Your task to perform on an android device: open app "Facebook Lite" (install if not already installed) and enter user name: "suppers@inbox.com" and password: "downplayed" Image 0: 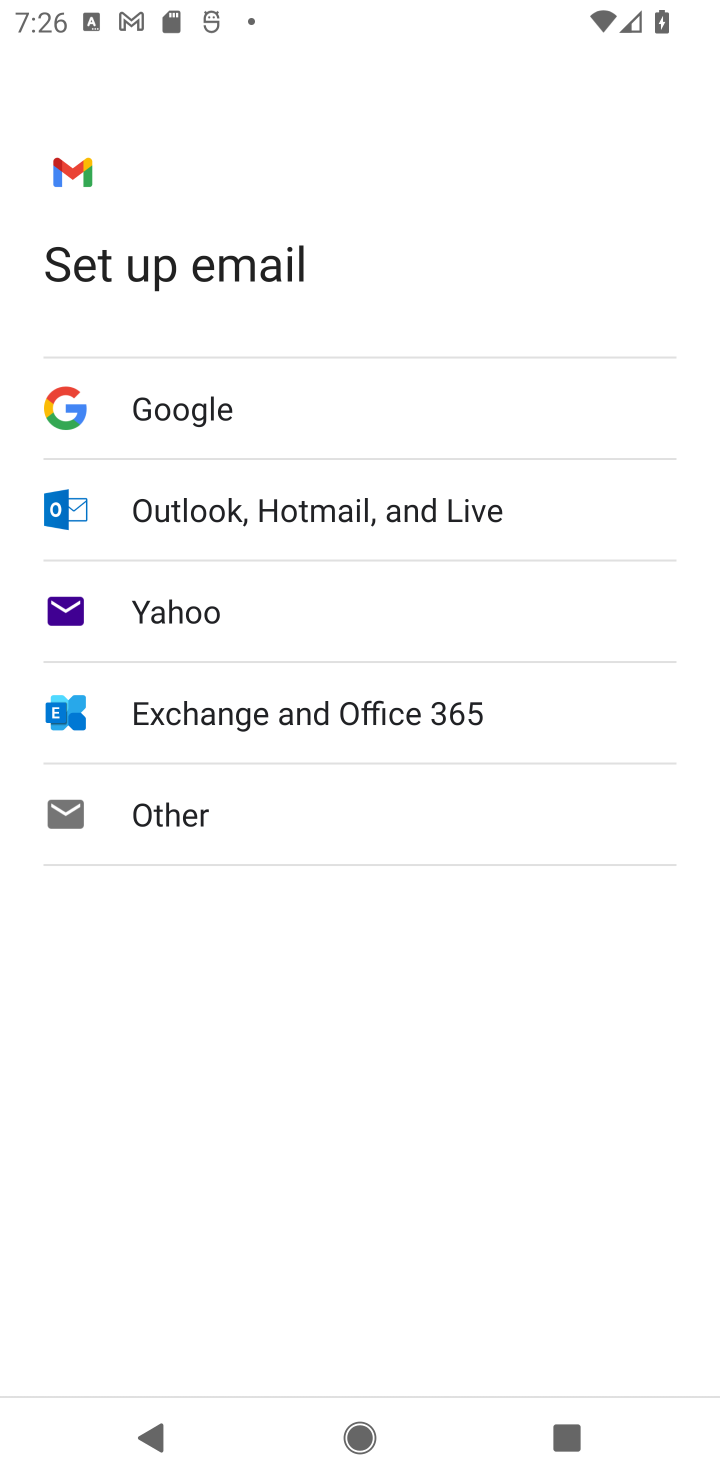
Step 0: press home button
Your task to perform on an android device: open app "Facebook Lite" (install if not already installed) and enter user name: "suppers@inbox.com" and password: "downplayed" Image 1: 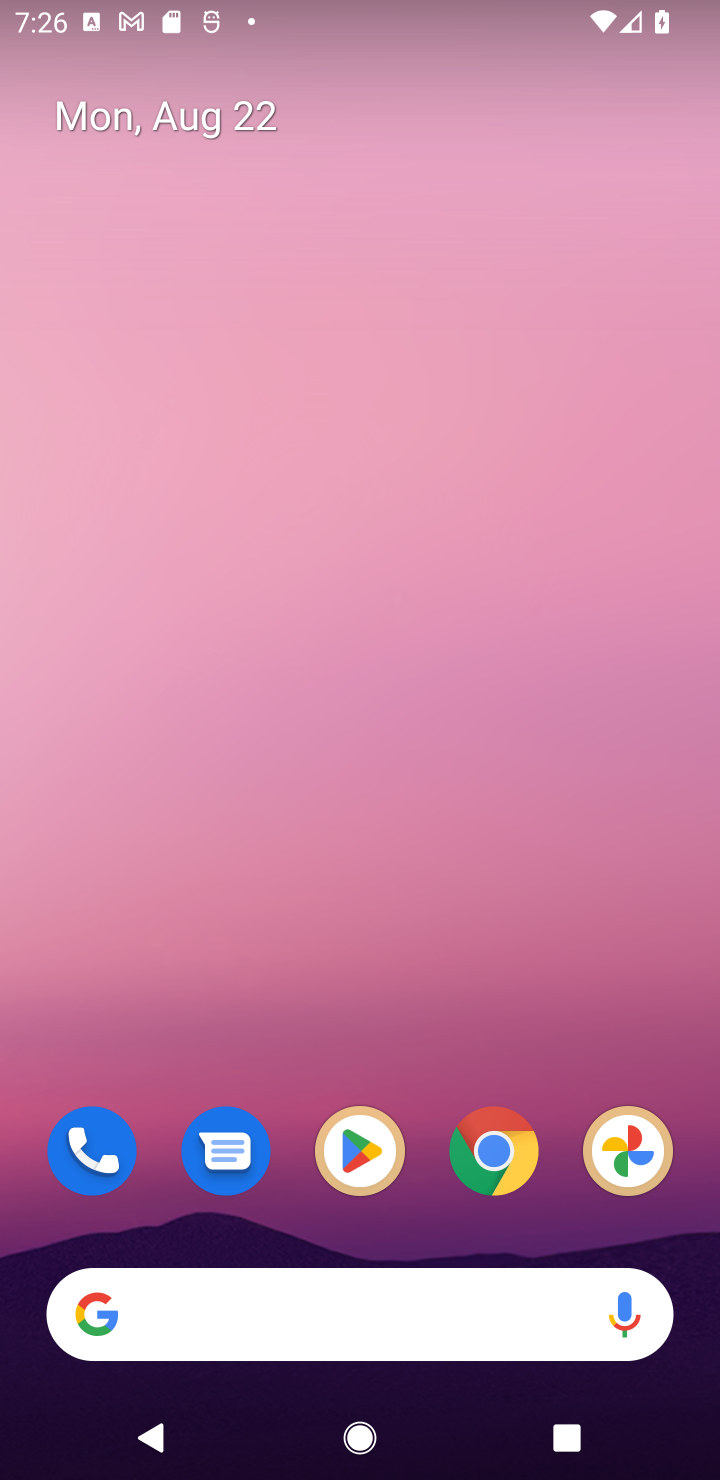
Step 1: click (369, 1152)
Your task to perform on an android device: open app "Facebook Lite" (install if not already installed) and enter user name: "suppers@inbox.com" and password: "downplayed" Image 2: 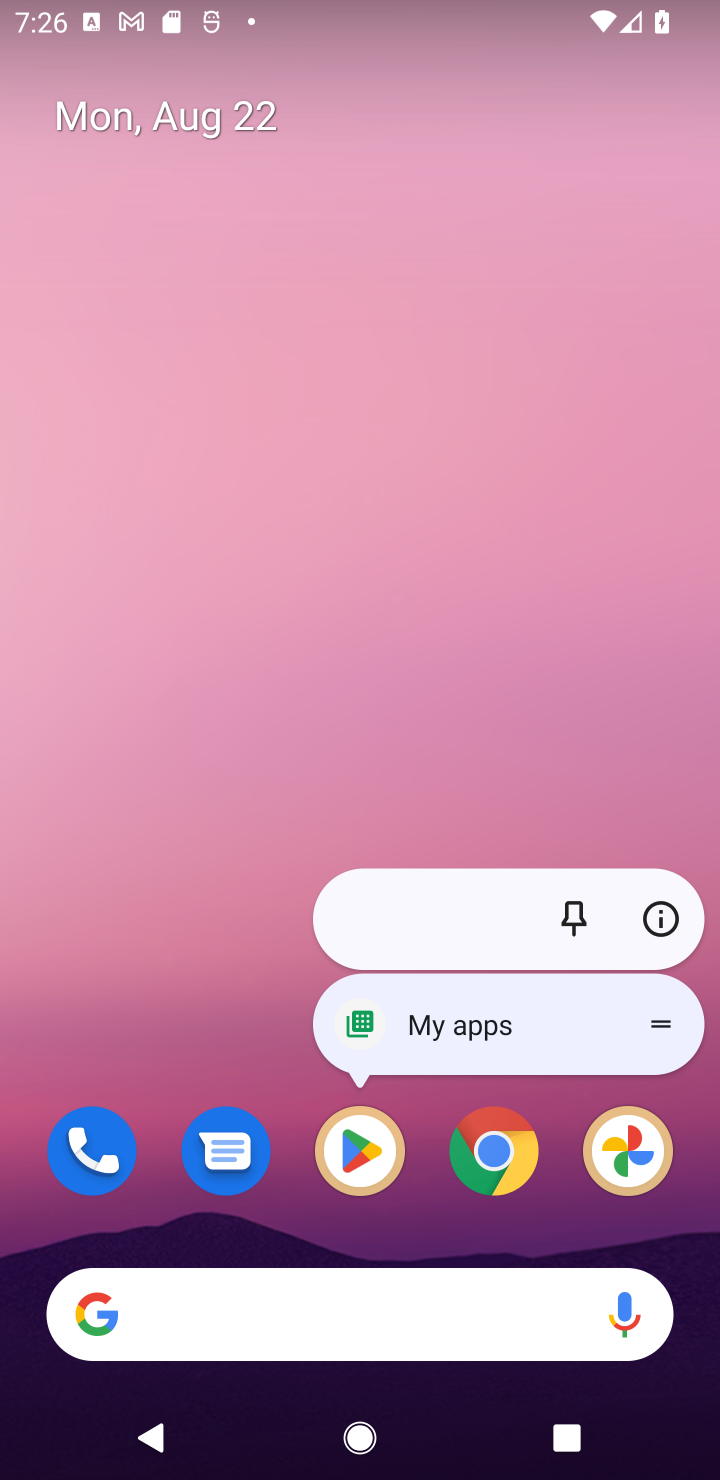
Step 2: click (369, 1154)
Your task to perform on an android device: open app "Facebook Lite" (install if not already installed) and enter user name: "suppers@inbox.com" and password: "downplayed" Image 3: 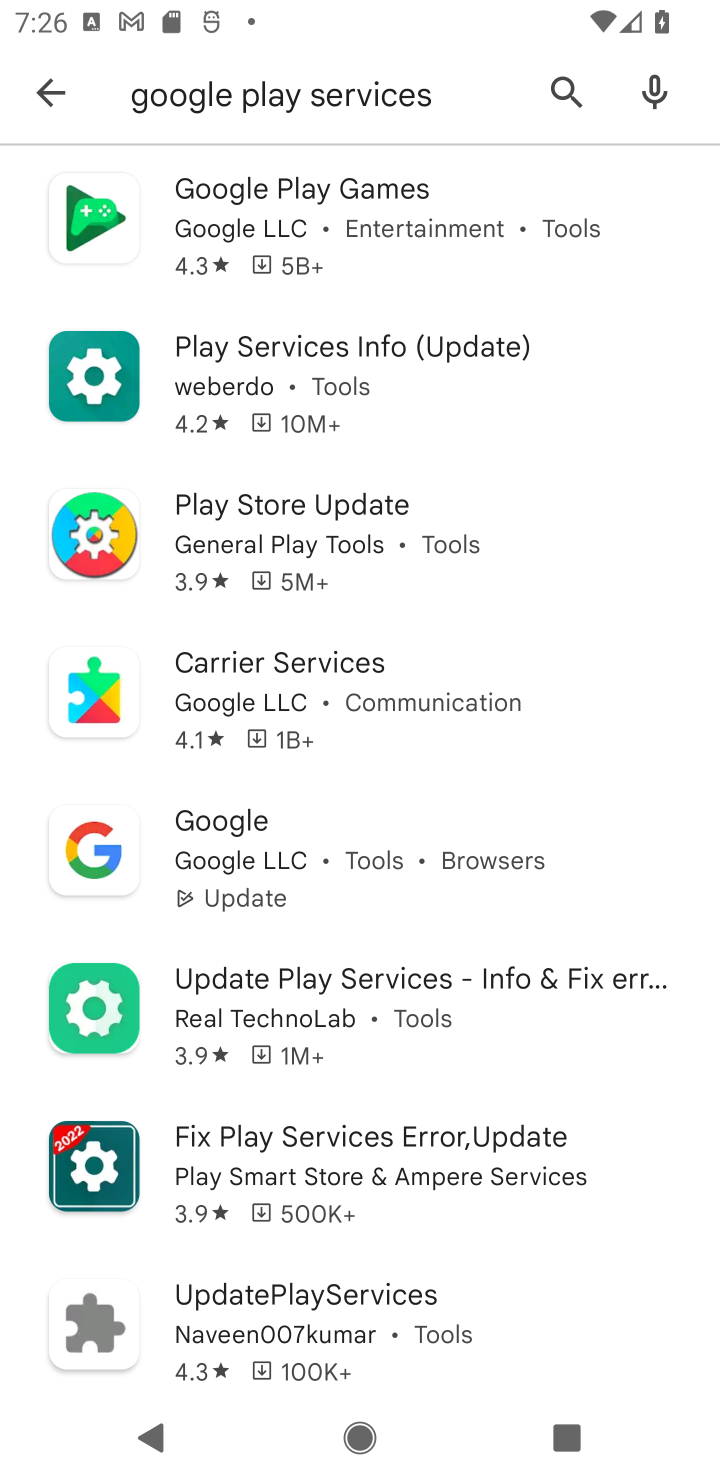
Step 3: click (556, 95)
Your task to perform on an android device: open app "Facebook Lite" (install if not already installed) and enter user name: "suppers@inbox.com" and password: "downplayed" Image 4: 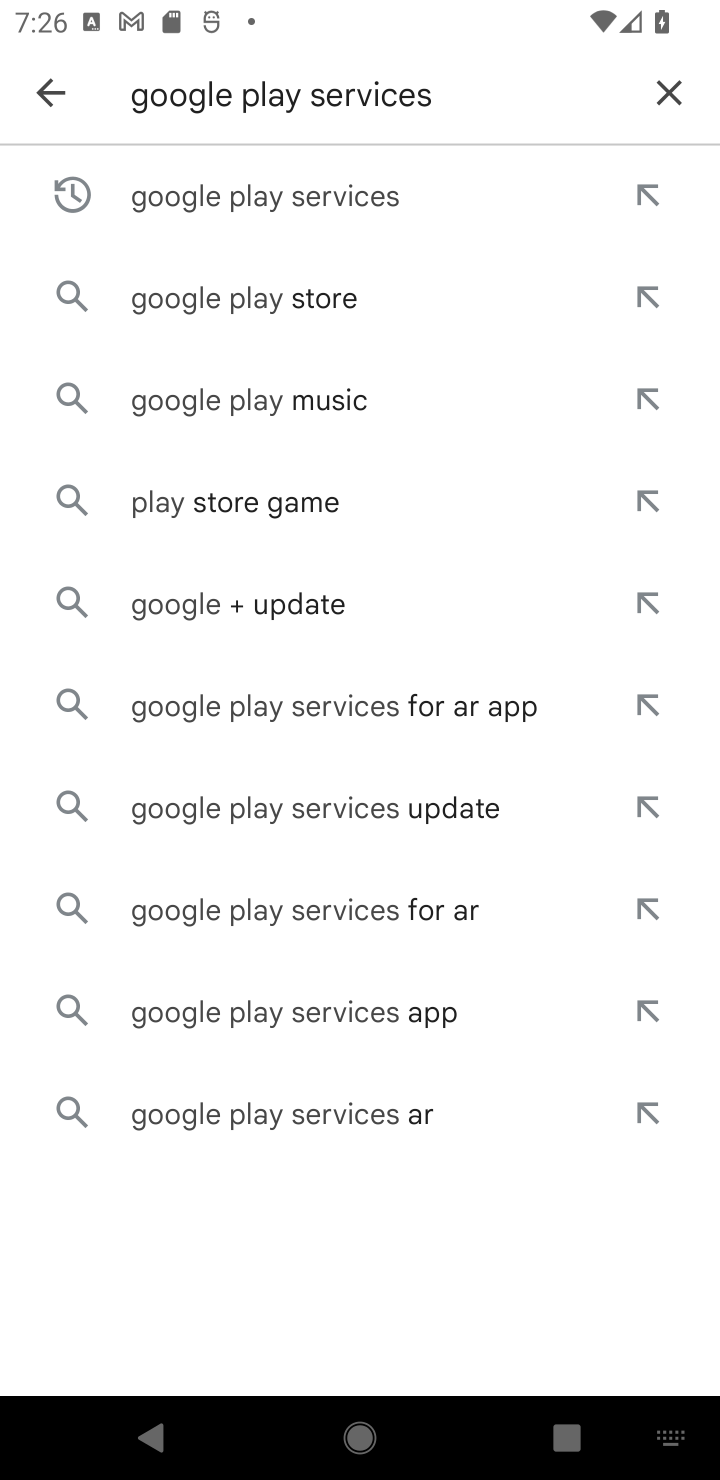
Step 4: click (661, 87)
Your task to perform on an android device: open app "Facebook Lite" (install if not already installed) and enter user name: "suppers@inbox.com" and password: "downplayed" Image 5: 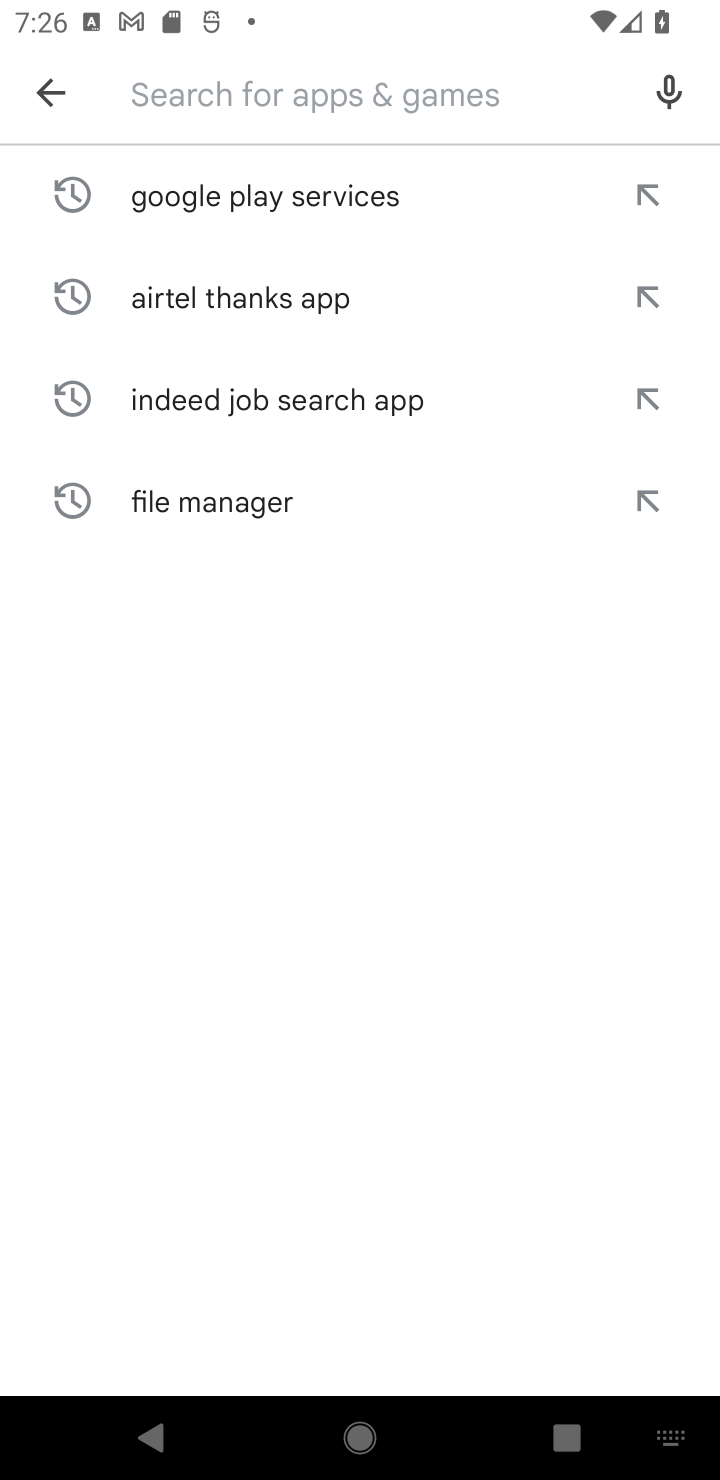
Step 5: type "Facebook Lite"
Your task to perform on an android device: open app "Facebook Lite" (install if not already installed) and enter user name: "suppers@inbox.com" and password: "downplayed" Image 6: 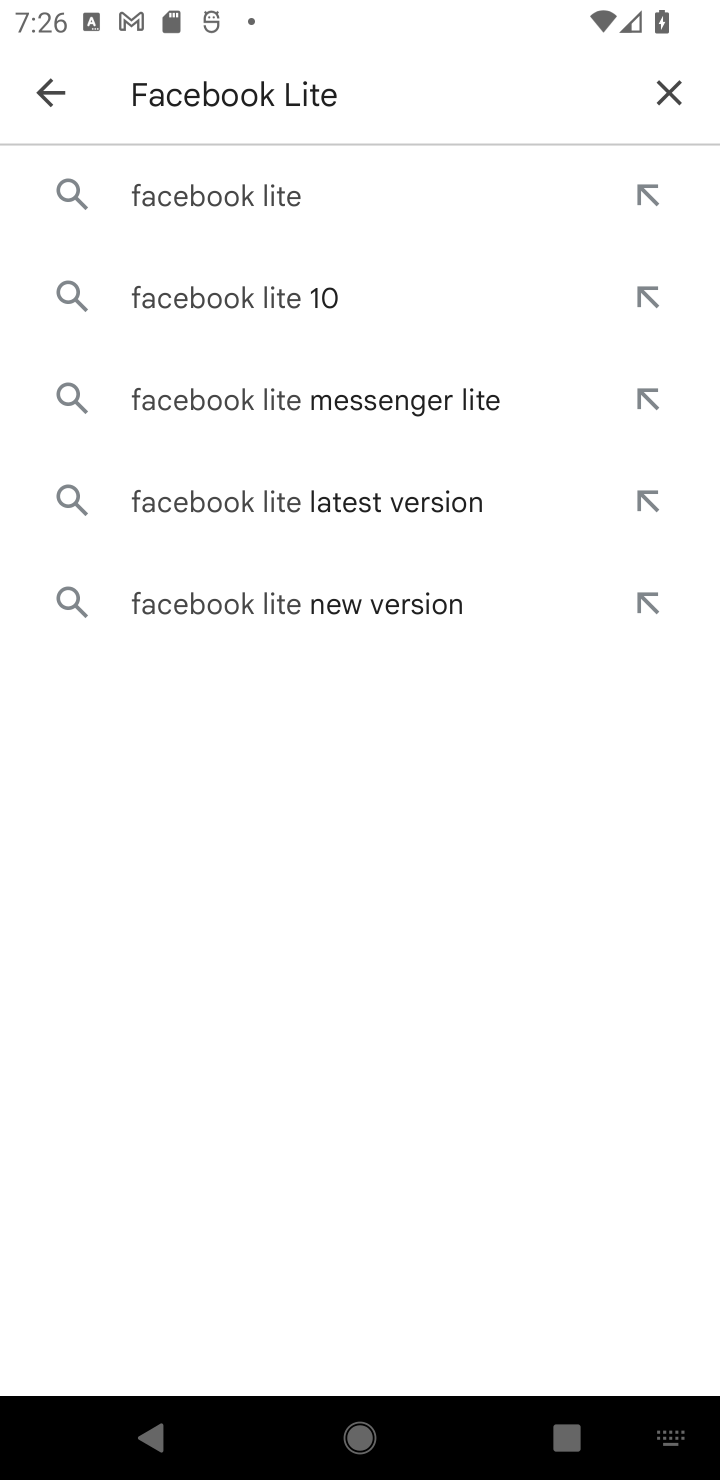
Step 6: click (283, 198)
Your task to perform on an android device: open app "Facebook Lite" (install if not already installed) and enter user name: "suppers@inbox.com" and password: "downplayed" Image 7: 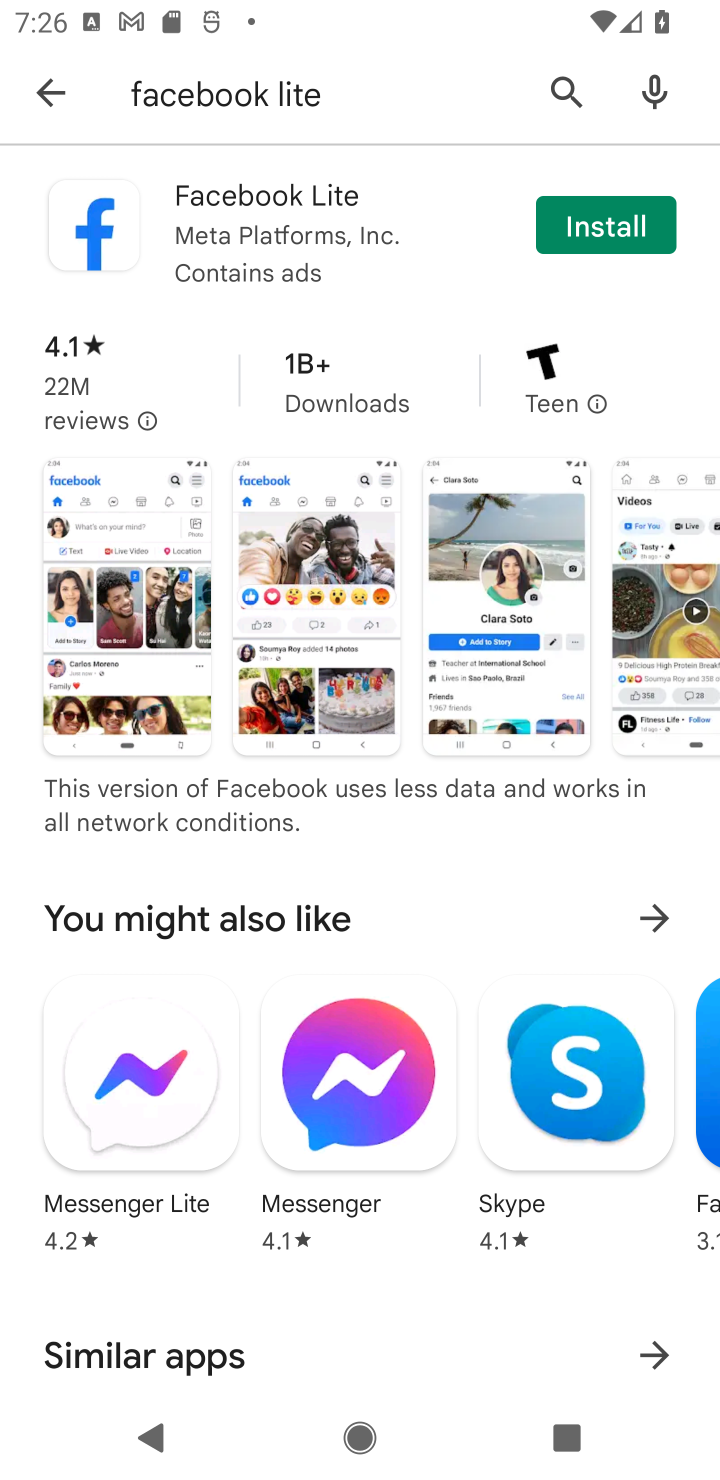
Step 7: click (594, 211)
Your task to perform on an android device: open app "Facebook Lite" (install if not already installed) and enter user name: "suppers@inbox.com" and password: "downplayed" Image 8: 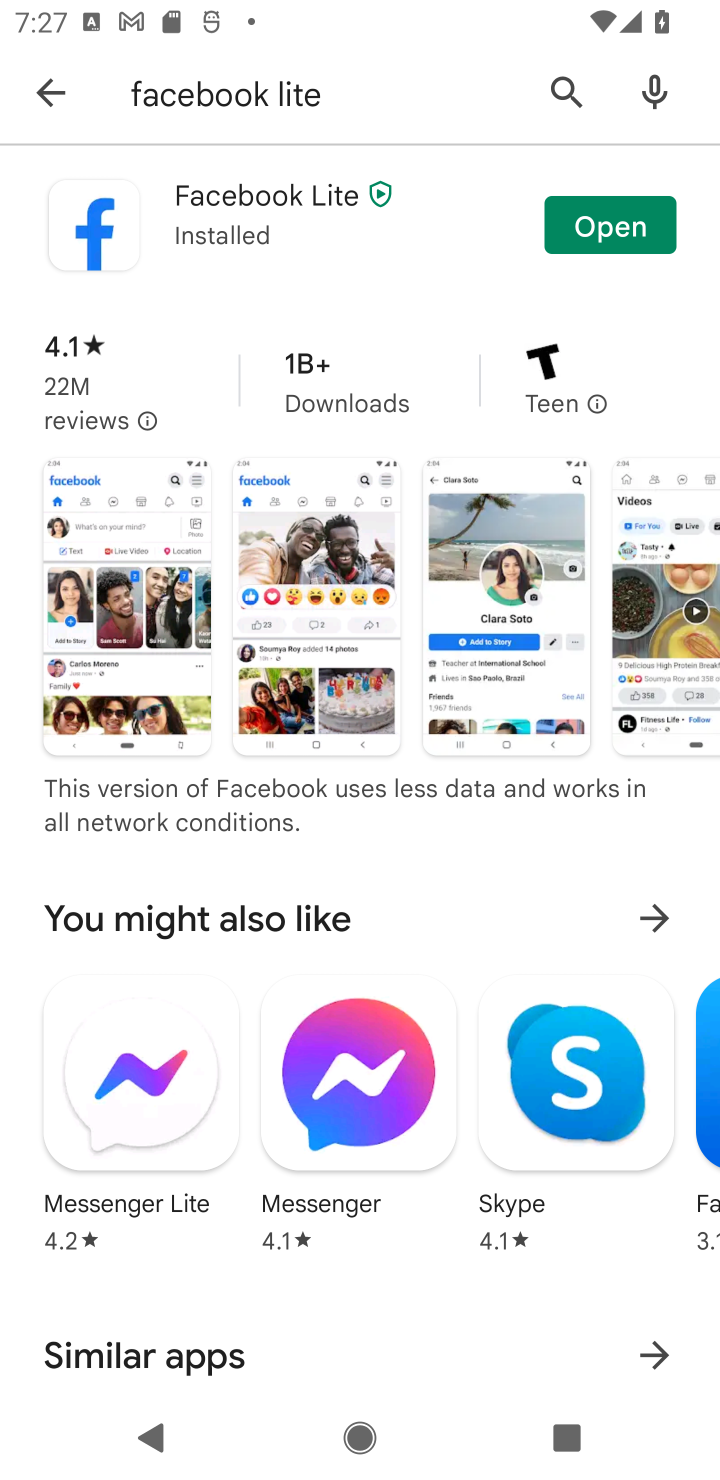
Step 8: click (610, 217)
Your task to perform on an android device: open app "Facebook Lite" (install if not already installed) and enter user name: "suppers@inbox.com" and password: "downplayed" Image 9: 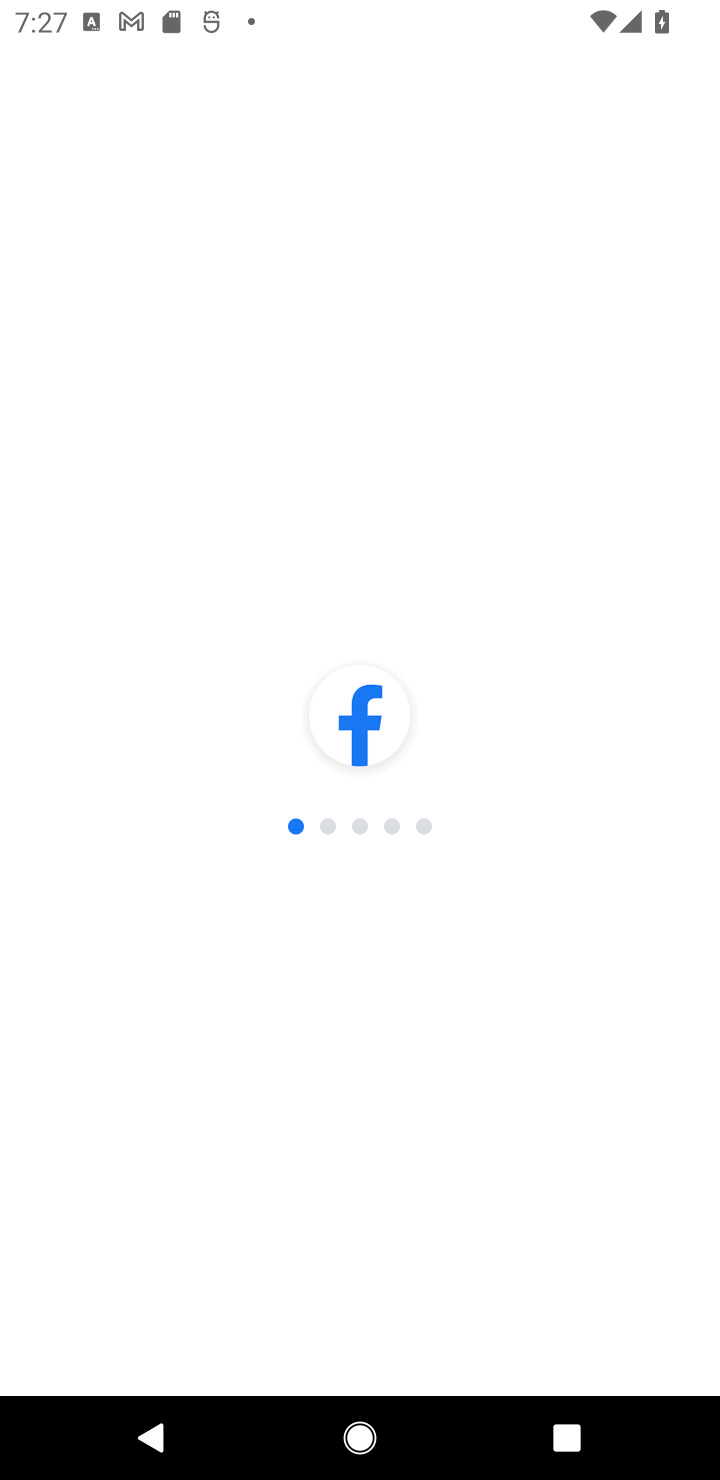
Step 9: task complete